Your task to perform on an android device: see creations saved in the google photos Image 0: 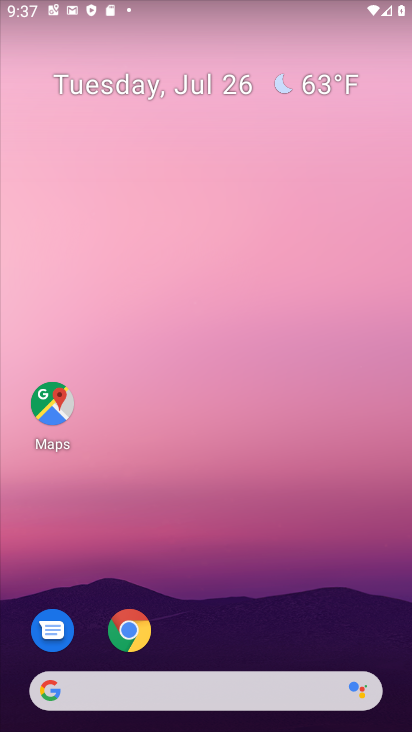
Step 0: press home button
Your task to perform on an android device: see creations saved in the google photos Image 1: 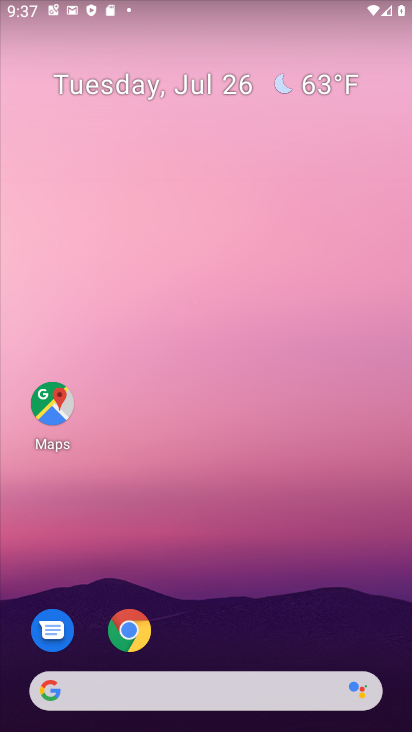
Step 1: drag from (202, 652) to (237, 151)
Your task to perform on an android device: see creations saved in the google photos Image 2: 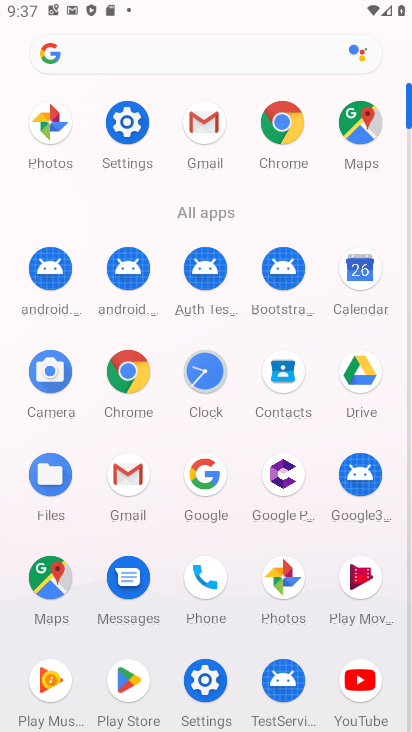
Step 2: click (282, 574)
Your task to perform on an android device: see creations saved in the google photos Image 3: 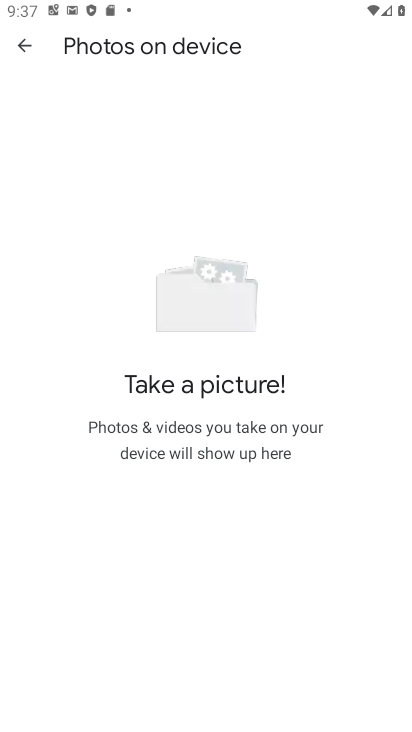
Step 3: click (21, 49)
Your task to perform on an android device: see creations saved in the google photos Image 4: 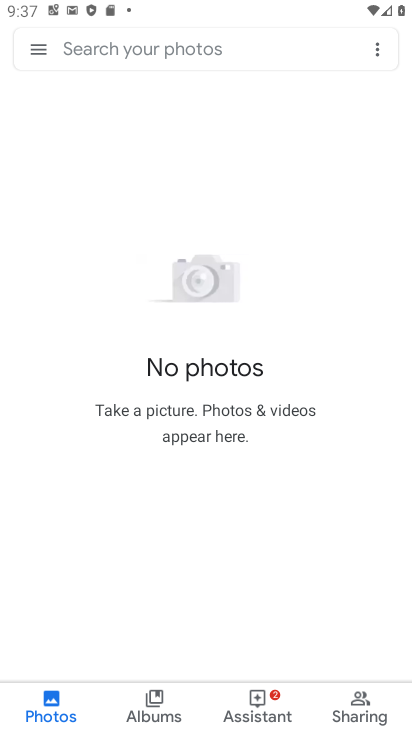
Step 4: click (146, 42)
Your task to perform on an android device: see creations saved in the google photos Image 5: 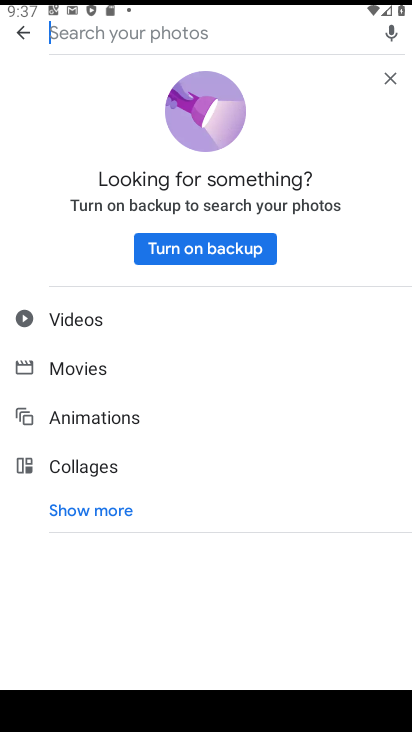
Step 5: click (90, 512)
Your task to perform on an android device: see creations saved in the google photos Image 6: 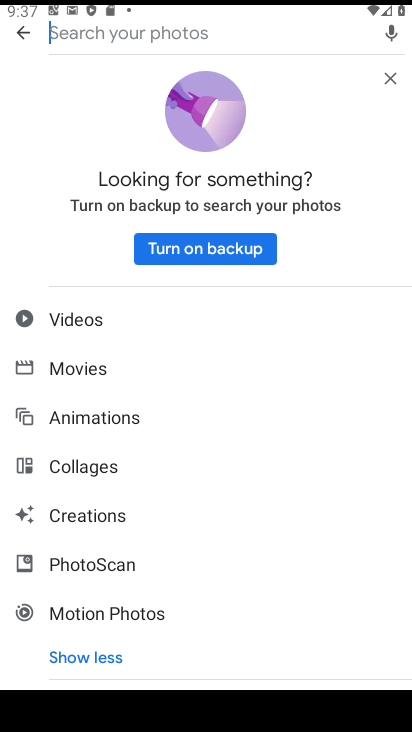
Step 6: click (104, 521)
Your task to perform on an android device: see creations saved in the google photos Image 7: 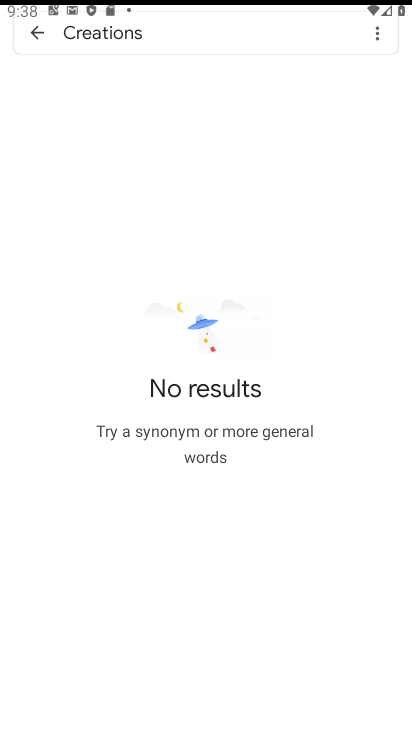
Step 7: task complete